Your task to perform on an android device: Open Google Maps and go to "Timeline" Image 0: 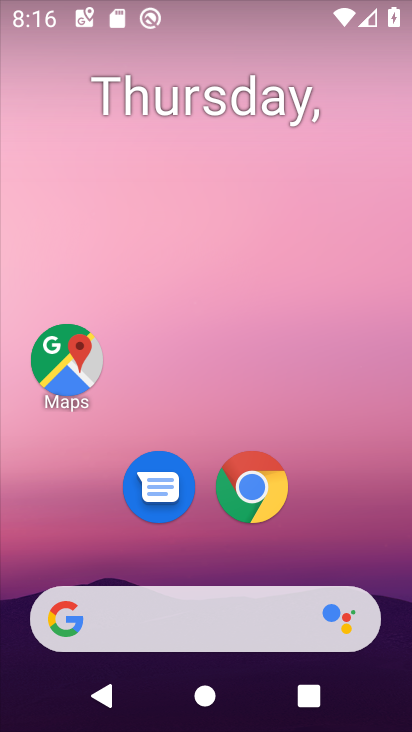
Step 0: click (69, 366)
Your task to perform on an android device: Open Google Maps and go to "Timeline" Image 1: 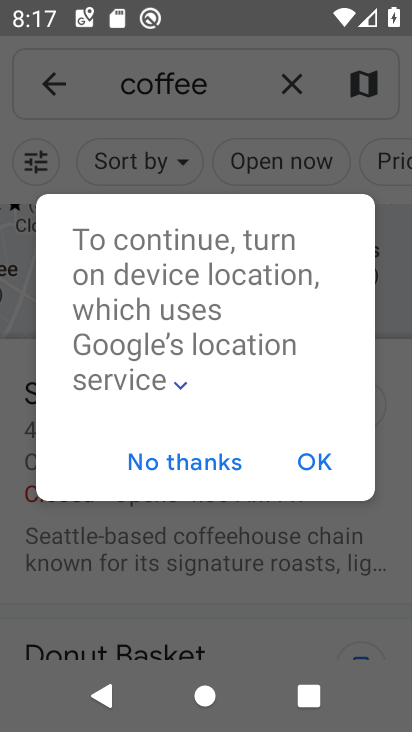
Step 1: click (303, 466)
Your task to perform on an android device: Open Google Maps and go to "Timeline" Image 2: 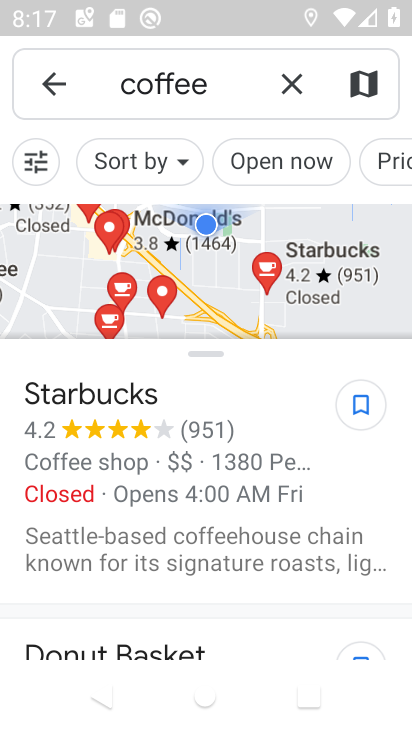
Step 2: press back button
Your task to perform on an android device: Open Google Maps and go to "Timeline" Image 3: 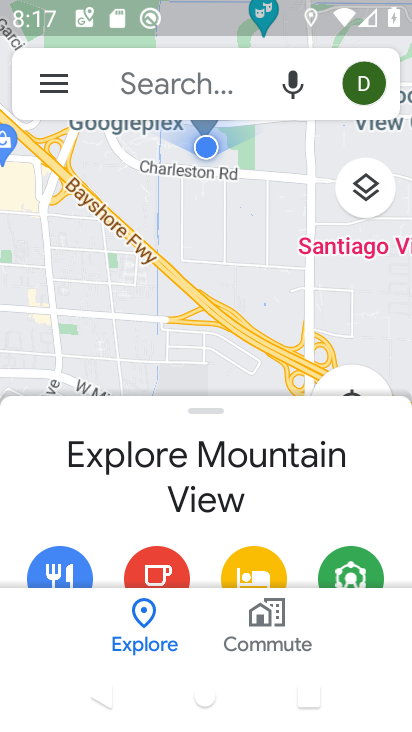
Step 3: click (47, 98)
Your task to perform on an android device: Open Google Maps and go to "Timeline" Image 4: 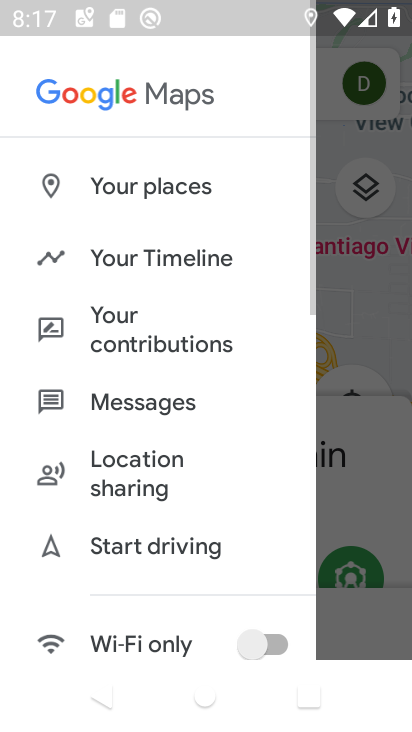
Step 4: click (196, 261)
Your task to perform on an android device: Open Google Maps and go to "Timeline" Image 5: 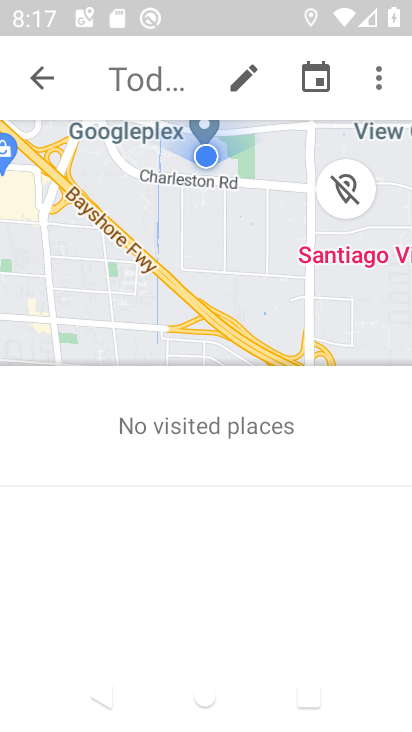
Step 5: task complete